Your task to perform on an android device: toggle show notifications on the lock screen Image 0: 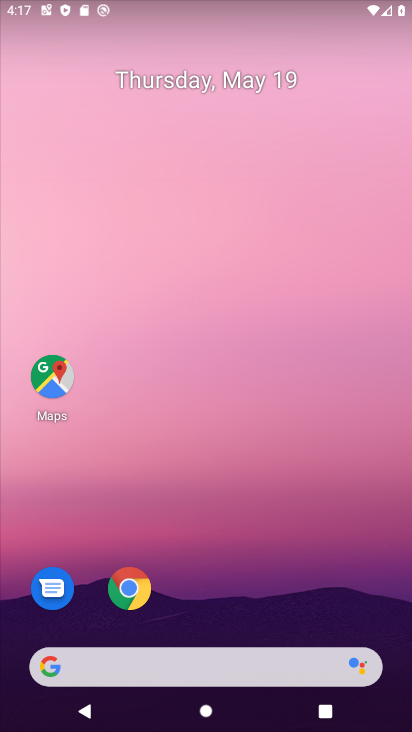
Step 0: drag from (196, 619) to (386, 24)
Your task to perform on an android device: toggle show notifications on the lock screen Image 1: 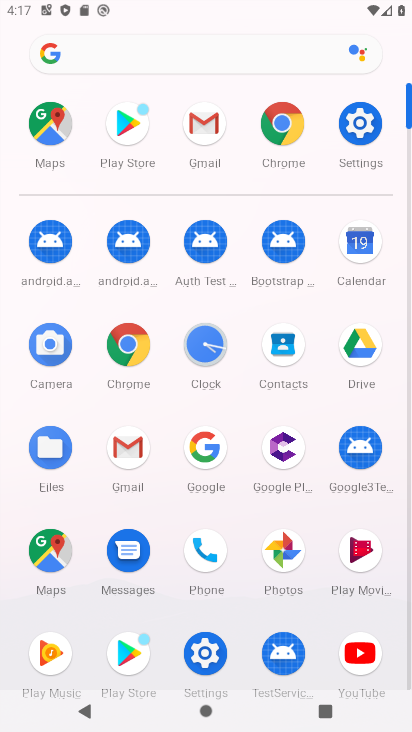
Step 1: click (191, 655)
Your task to perform on an android device: toggle show notifications on the lock screen Image 2: 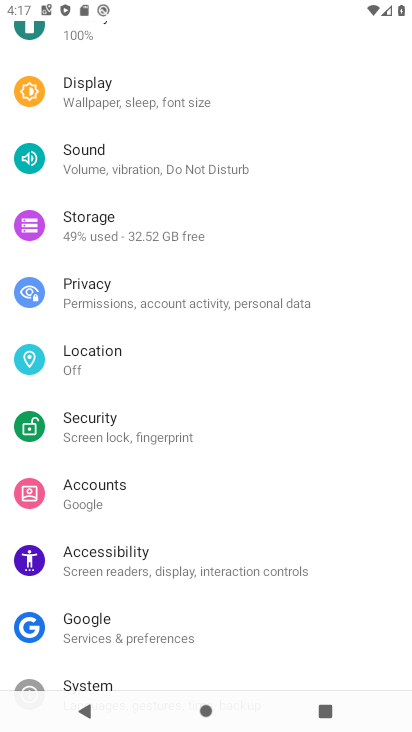
Step 2: drag from (159, 610) to (178, 319)
Your task to perform on an android device: toggle show notifications on the lock screen Image 3: 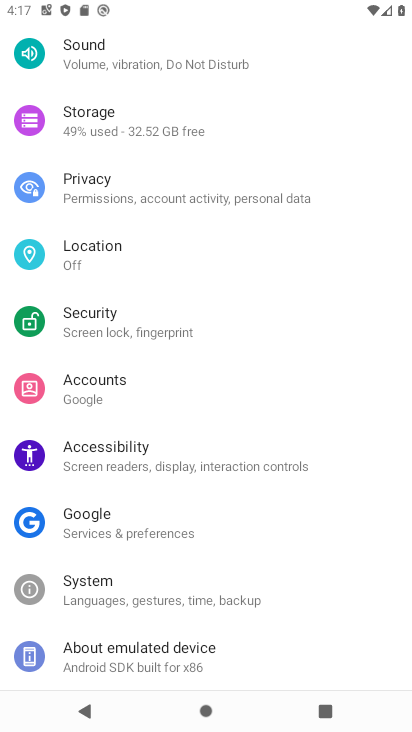
Step 3: drag from (172, 223) to (133, 727)
Your task to perform on an android device: toggle show notifications on the lock screen Image 4: 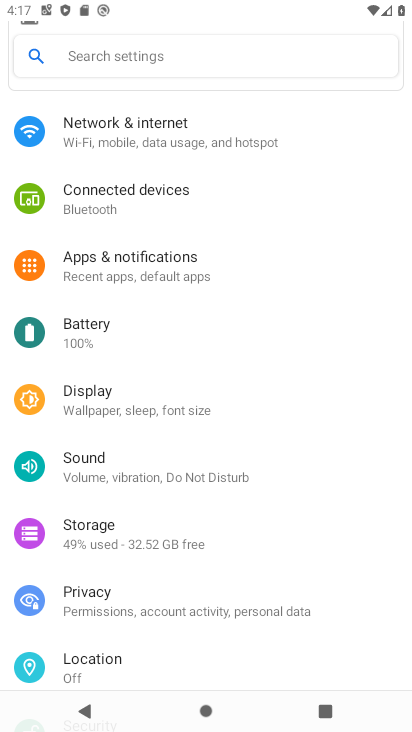
Step 4: click (109, 278)
Your task to perform on an android device: toggle show notifications on the lock screen Image 5: 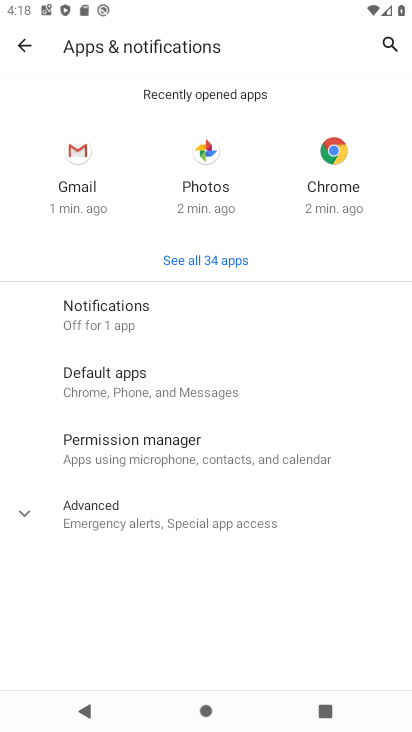
Step 5: click (124, 318)
Your task to perform on an android device: toggle show notifications on the lock screen Image 6: 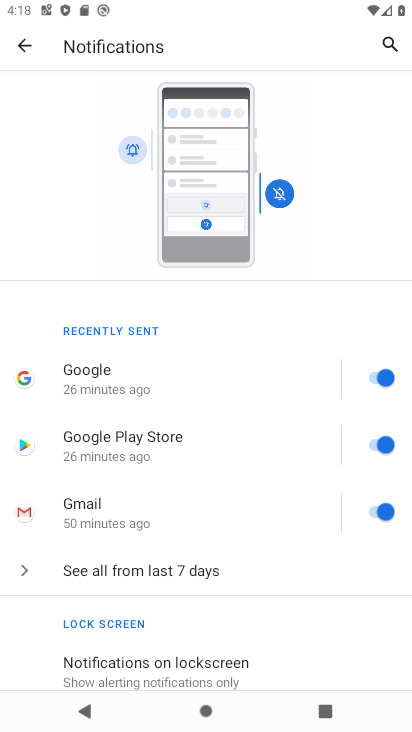
Step 6: click (148, 663)
Your task to perform on an android device: toggle show notifications on the lock screen Image 7: 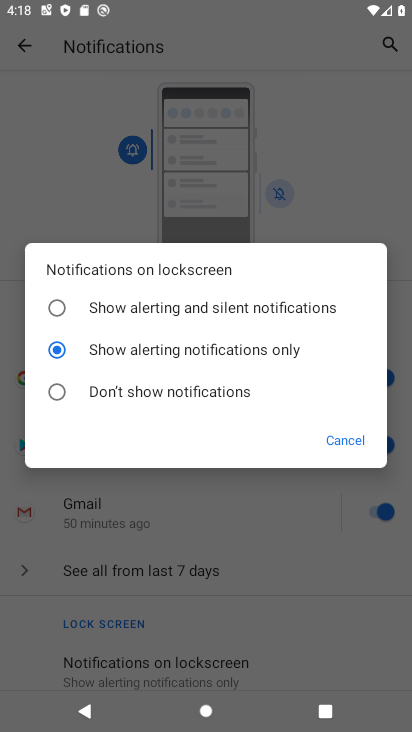
Step 7: click (123, 302)
Your task to perform on an android device: toggle show notifications on the lock screen Image 8: 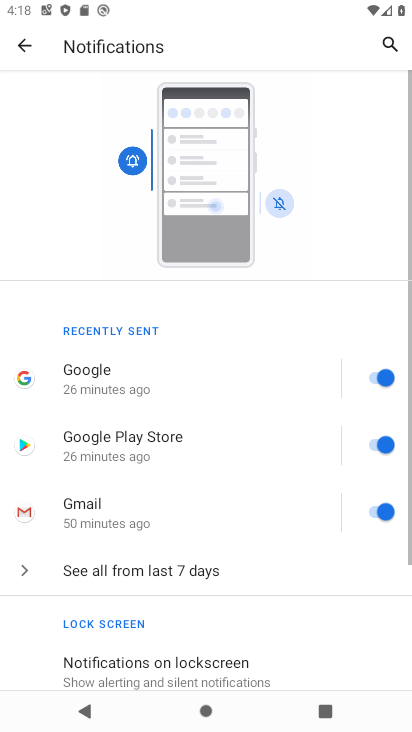
Step 8: task complete